Your task to perform on an android device: turn pop-ups off in chrome Image 0: 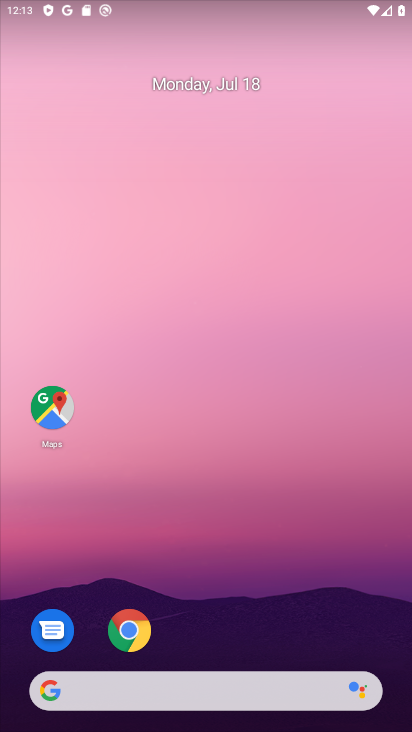
Step 0: drag from (179, 688) to (217, 50)
Your task to perform on an android device: turn pop-ups off in chrome Image 1: 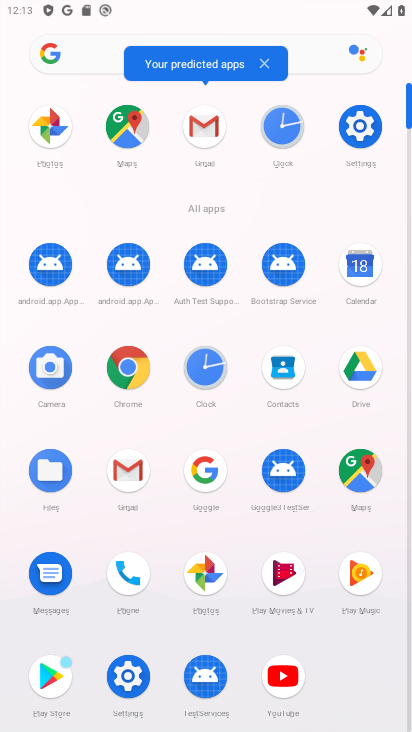
Step 1: click (129, 360)
Your task to perform on an android device: turn pop-ups off in chrome Image 2: 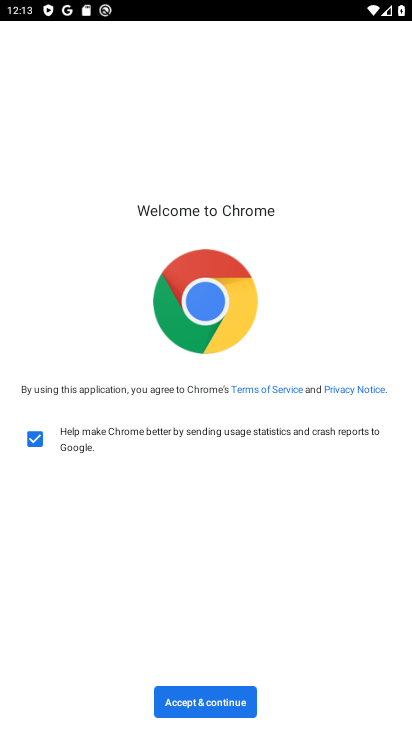
Step 2: click (210, 708)
Your task to perform on an android device: turn pop-ups off in chrome Image 3: 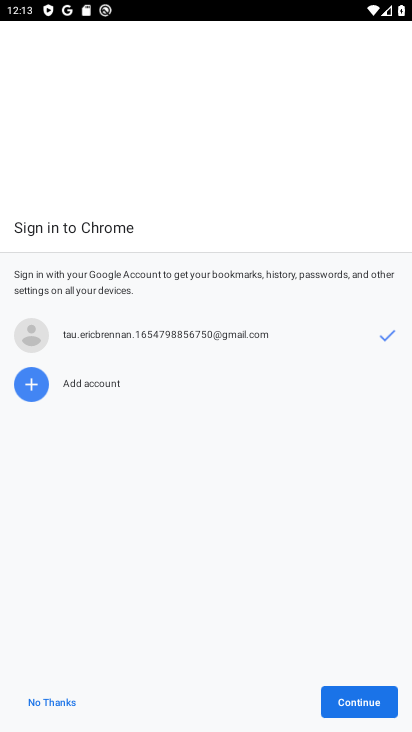
Step 3: click (64, 700)
Your task to perform on an android device: turn pop-ups off in chrome Image 4: 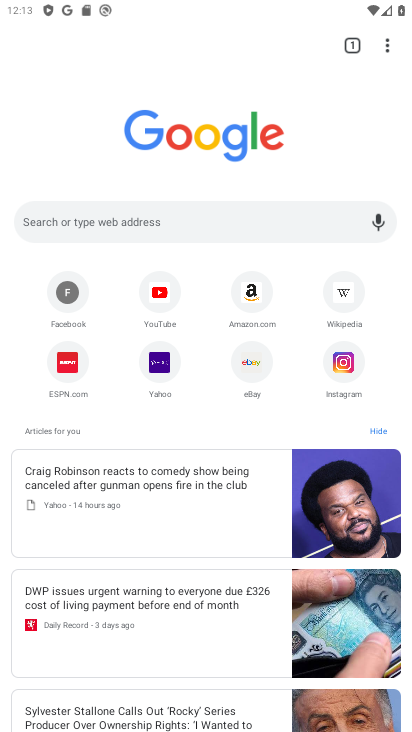
Step 4: click (386, 47)
Your task to perform on an android device: turn pop-ups off in chrome Image 5: 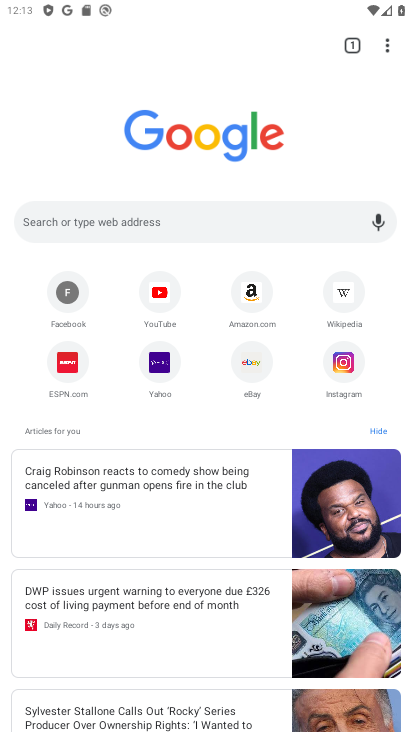
Step 5: drag from (388, 37) to (291, 392)
Your task to perform on an android device: turn pop-ups off in chrome Image 6: 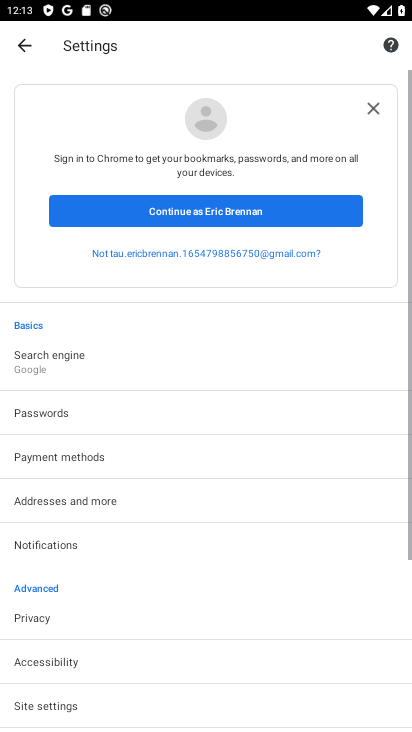
Step 6: drag from (217, 549) to (230, 237)
Your task to perform on an android device: turn pop-ups off in chrome Image 7: 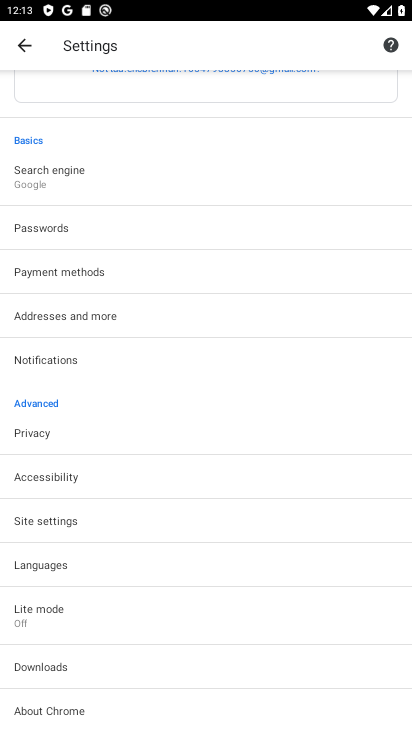
Step 7: click (76, 534)
Your task to perform on an android device: turn pop-ups off in chrome Image 8: 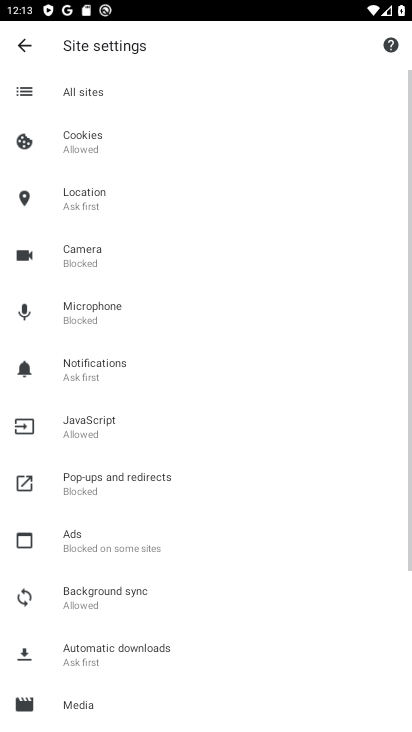
Step 8: click (148, 487)
Your task to perform on an android device: turn pop-ups off in chrome Image 9: 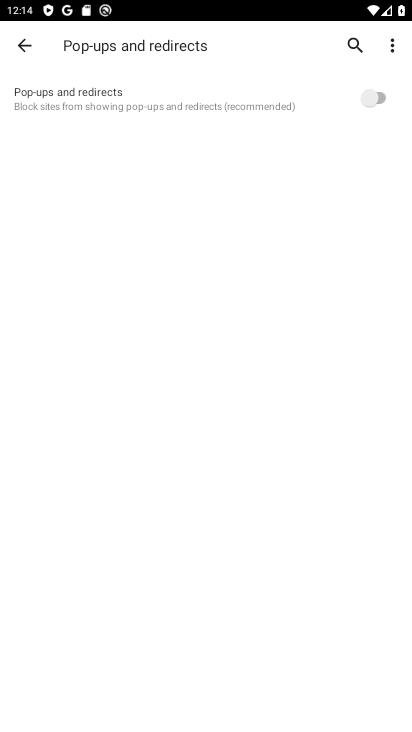
Step 9: task complete